Your task to perform on an android device: change the upload size in google photos Image 0: 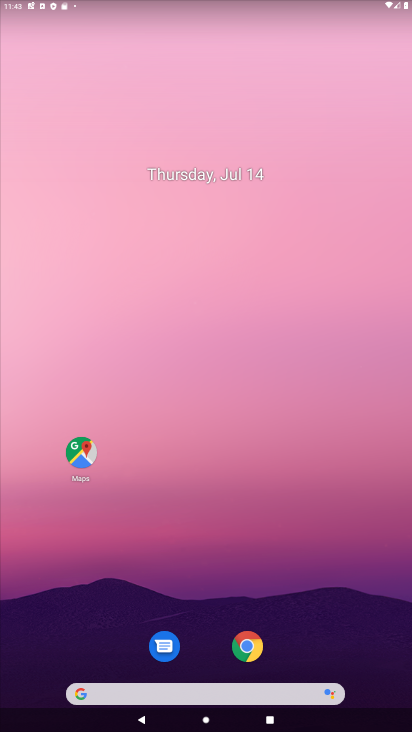
Step 0: drag from (193, 637) to (173, 427)
Your task to perform on an android device: change the upload size in google photos Image 1: 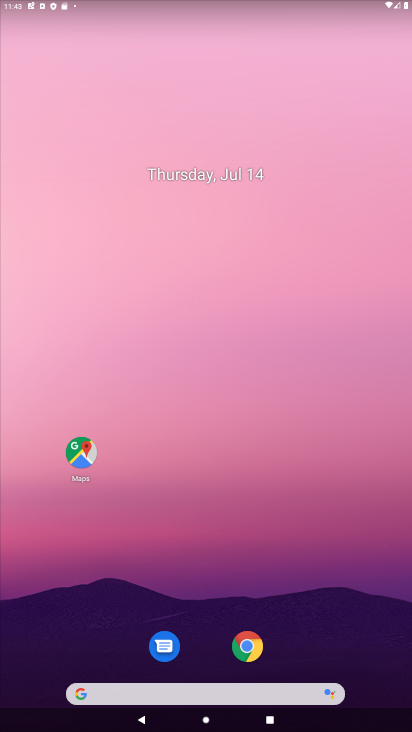
Step 1: drag from (209, 632) to (161, 59)
Your task to perform on an android device: change the upload size in google photos Image 2: 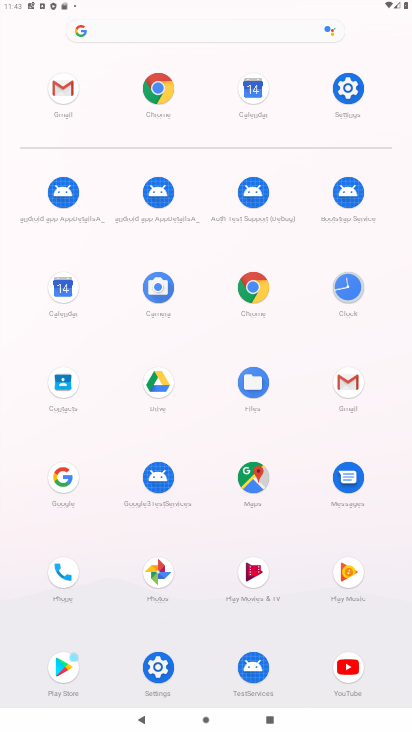
Step 2: click (165, 580)
Your task to perform on an android device: change the upload size in google photos Image 3: 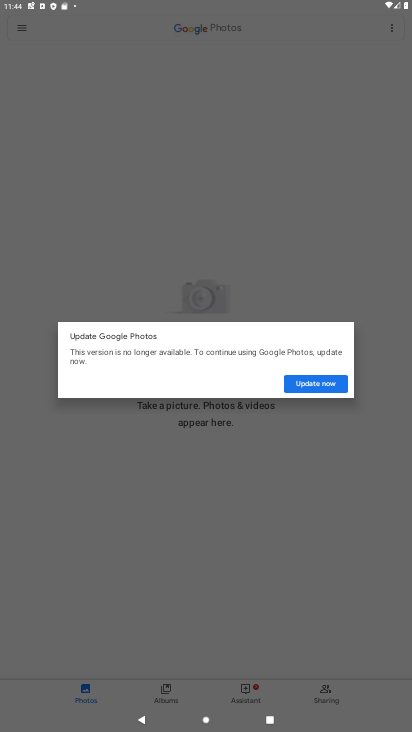
Step 3: click (313, 376)
Your task to perform on an android device: change the upload size in google photos Image 4: 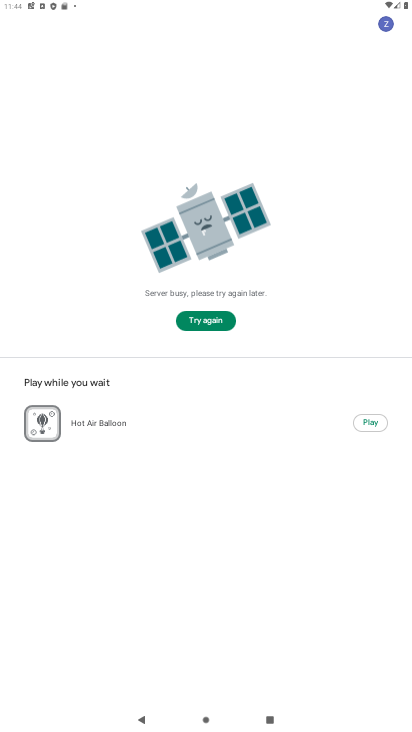
Step 4: task complete